Your task to perform on an android device: turn on the 24-hour format for clock Image 0: 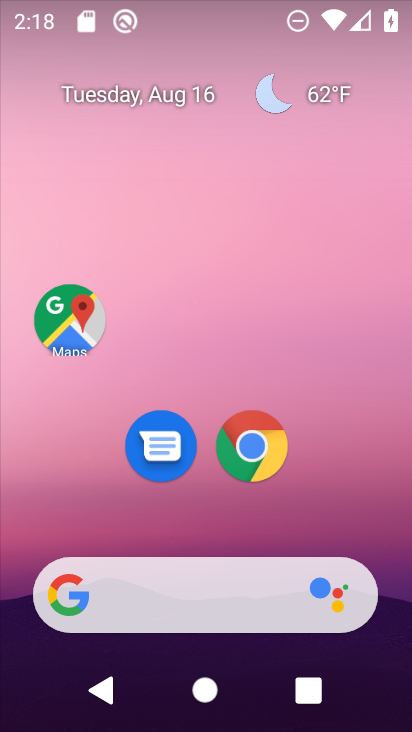
Step 0: press home button
Your task to perform on an android device: turn on the 24-hour format for clock Image 1: 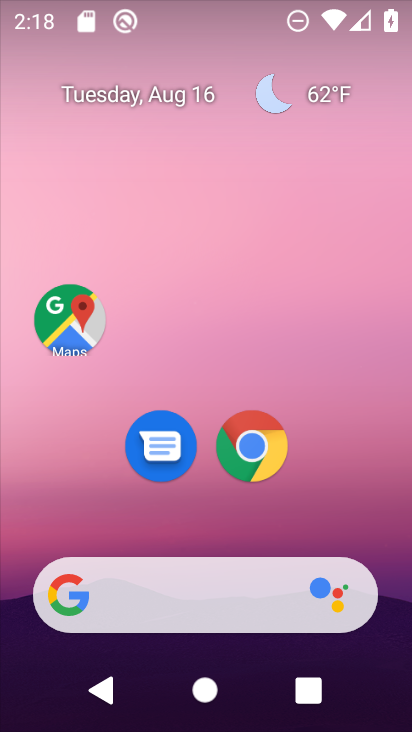
Step 1: drag from (210, 528) to (197, 70)
Your task to perform on an android device: turn on the 24-hour format for clock Image 2: 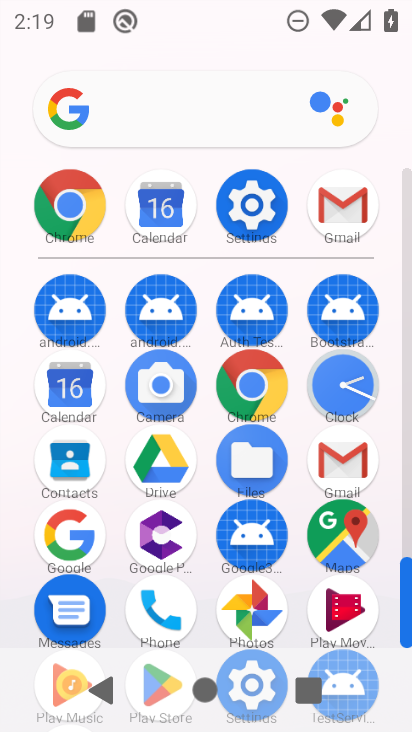
Step 2: click (337, 376)
Your task to perform on an android device: turn on the 24-hour format for clock Image 3: 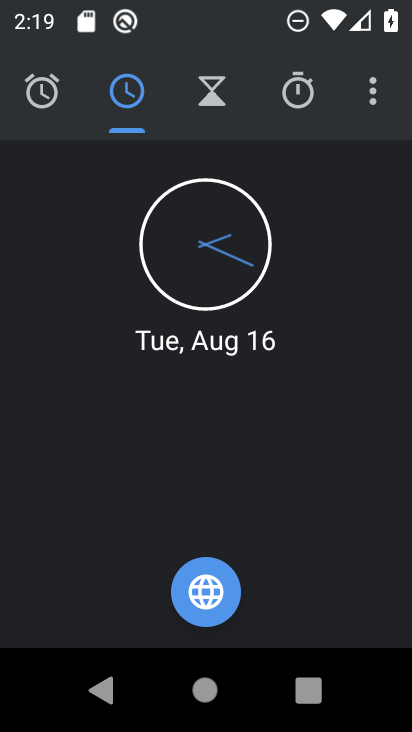
Step 3: click (372, 86)
Your task to perform on an android device: turn on the 24-hour format for clock Image 4: 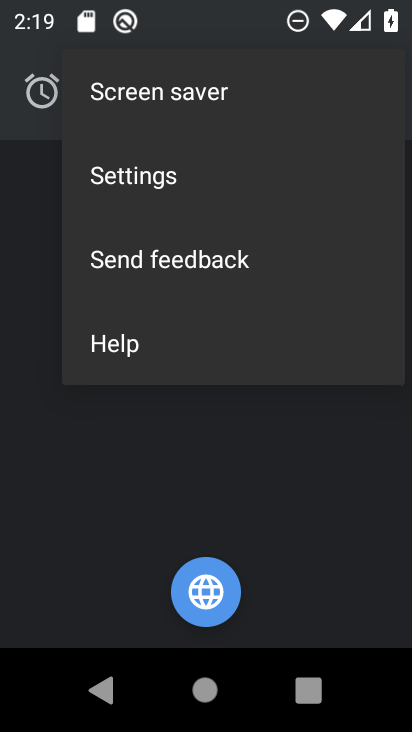
Step 4: click (178, 173)
Your task to perform on an android device: turn on the 24-hour format for clock Image 5: 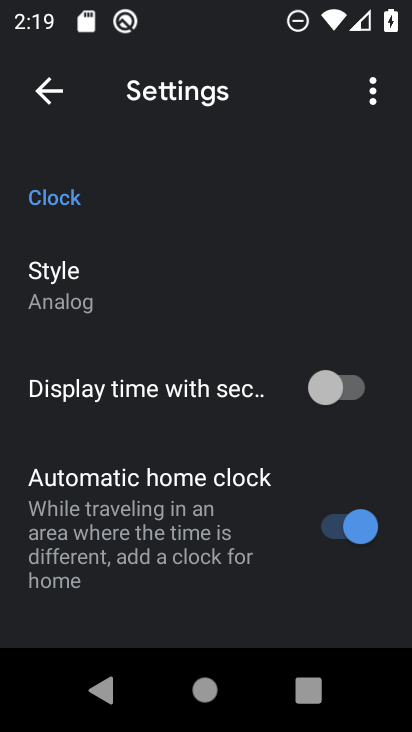
Step 5: drag from (203, 585) to (218, 117)
Your task to perform on an android device: turn on the 24-hour format for clock Image 6: 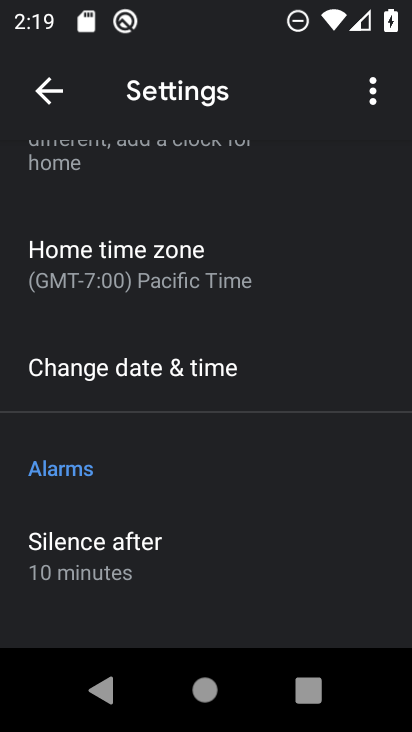
Step 6: click (241, 408)
Your task to perform on an android device: turn on the 24-hour format for clock Image 7: 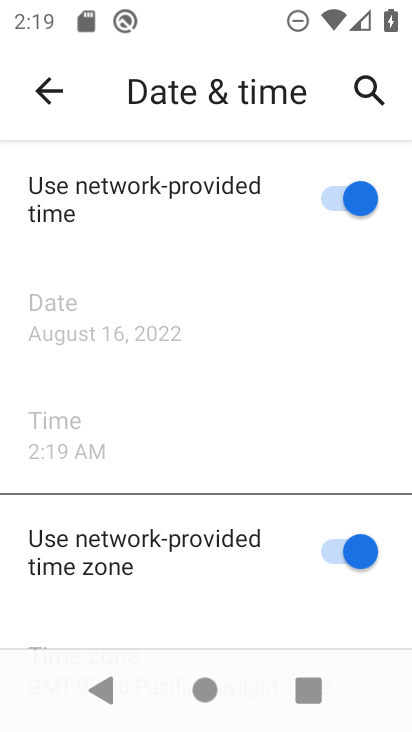
Step 7: drag from (186, 595) to (193, 123)
Your task to perform on an android device: turn on the 24-hour format for clock Image 8: 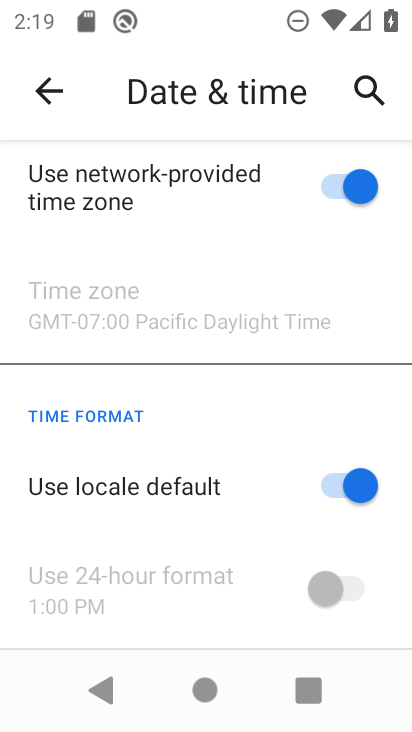
Step 8: drag from (227, 544) to (246, 197)
Your task to perform on an android device: turn on the 24-hour format for clock Image 9: 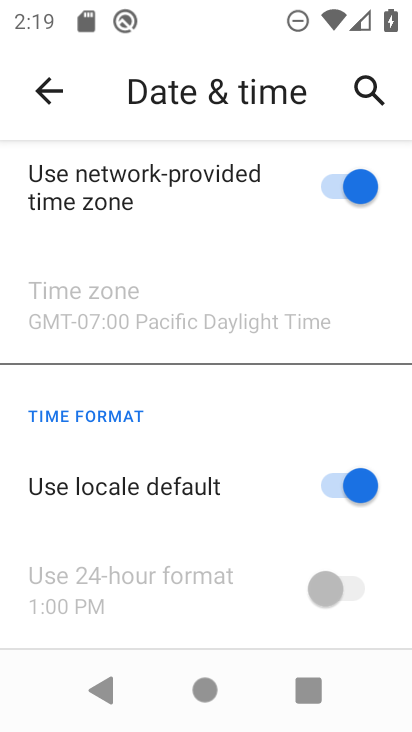
Step 9: click (334, 468)
Your task to perform on an android device: turn on the 24-hour format for clock Image 10: 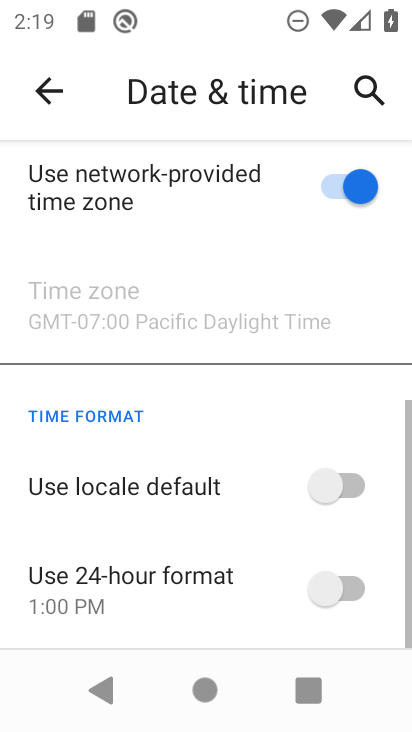
Step 10: click (344, 587)
Your task to perform on an android device: turn on the 24-hour format for clock Image 11: 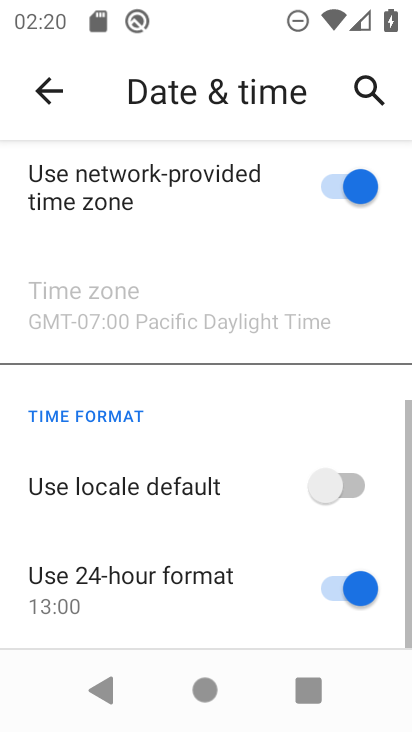
Step 11: task complete